Your task to perform on an android device: See recent photos Image 0: 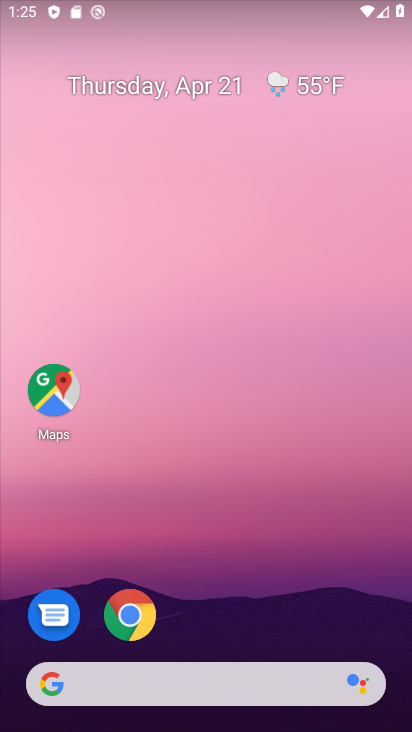
Step 0: drag from (203, 640) to (199, 293)
Your task to perform on an android device: See recent photos Image 1: 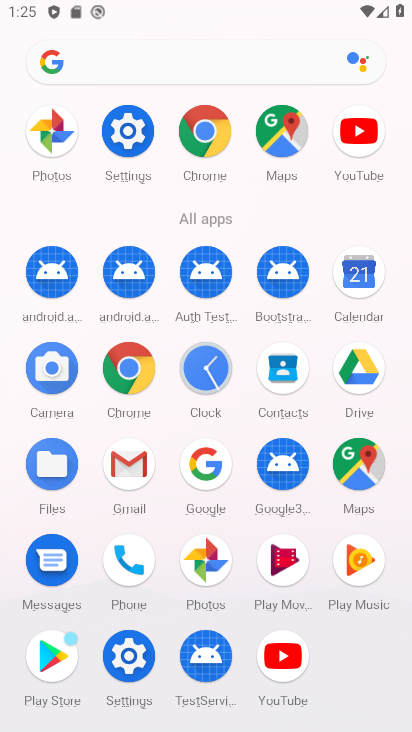
Step 1: click (201, 564)
Your task to perform on an android device: See recent photos Image 2: 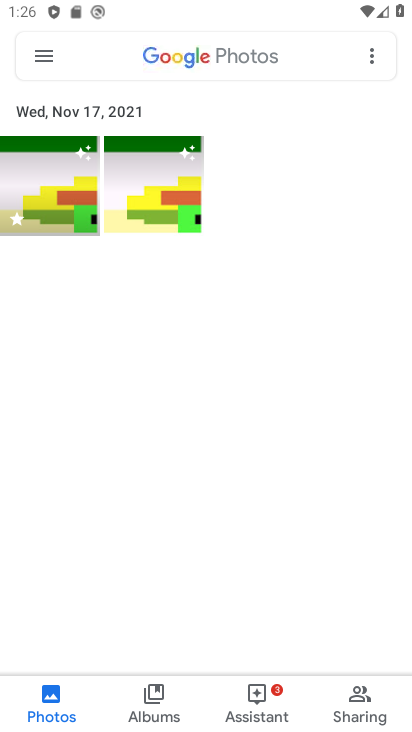
Step 2: click (55, 187)
Your task to perform on an android device: See recent photos Image 3: 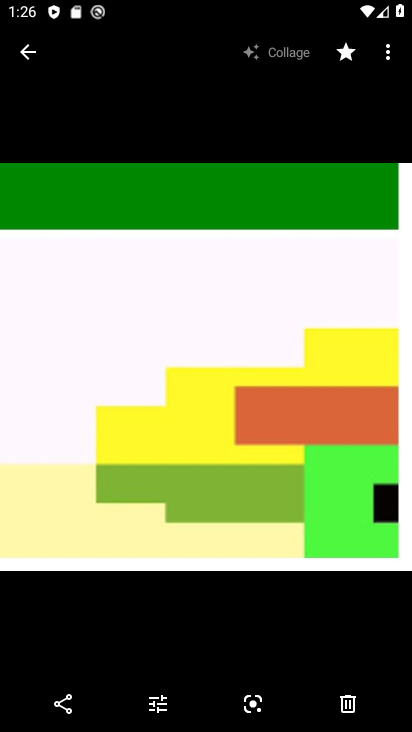
Step 3: task complete